Your task to perform on an android device: change timer sound Image 0: 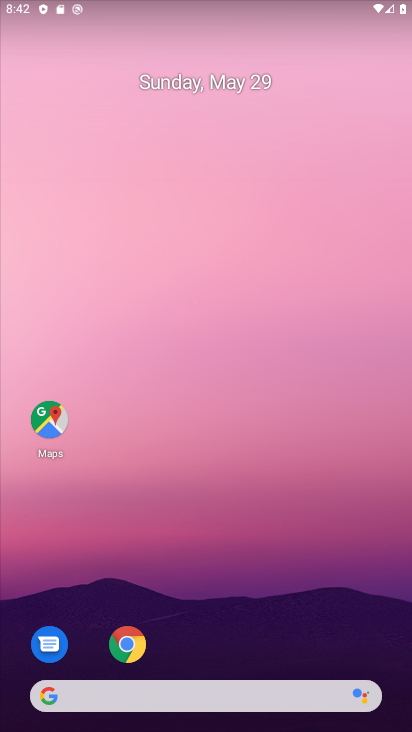
Step 0: drag from (222, 676) to (11, 111)
Your task to perform on an android device: change timer sound Image 1: 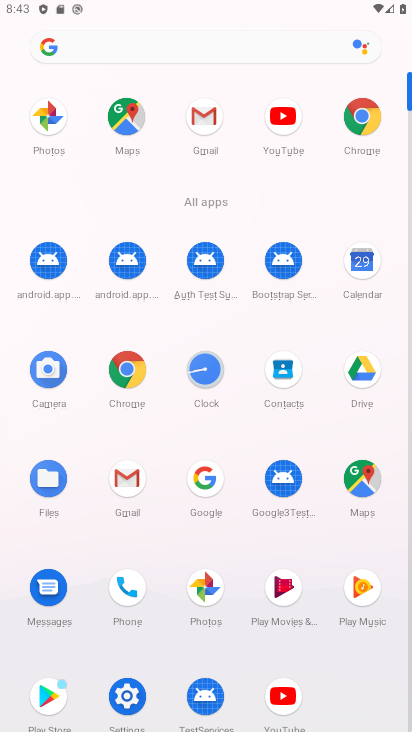
Step 1: click (205, 371)
Your task to perform on an android device: change timer sound Image 2: 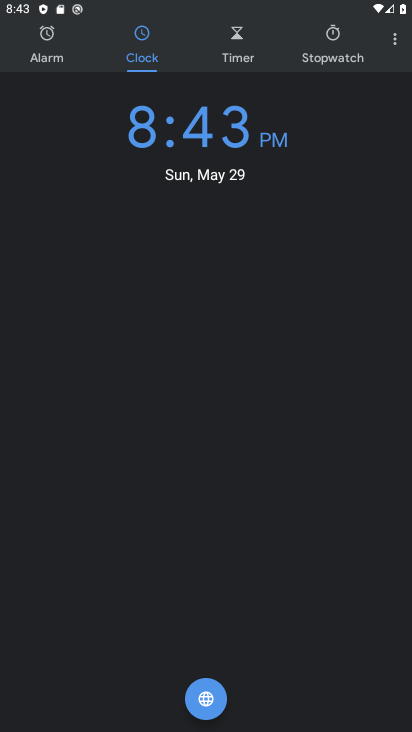
Step 2: click (395, 36)
Your task to perform on an android device: change timer sound Image 3: 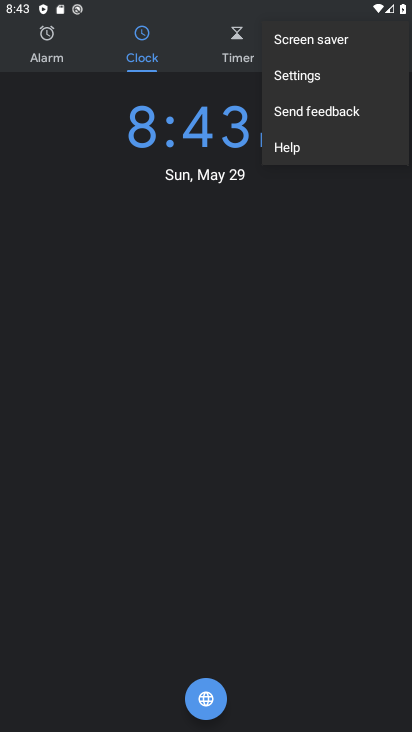
Step 3: click (326, 83)
Your task to perform on an android device: change timer sound Image 4: 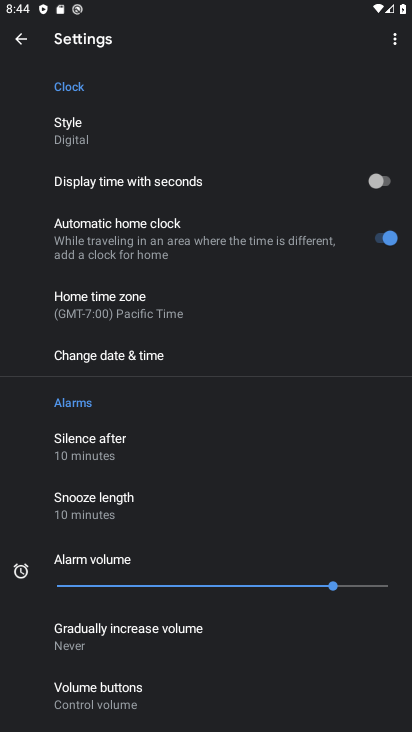
Step 4: drag from (146, 513) to (165, 5)
Your task to perform on an android device: change timer sound Image 5: 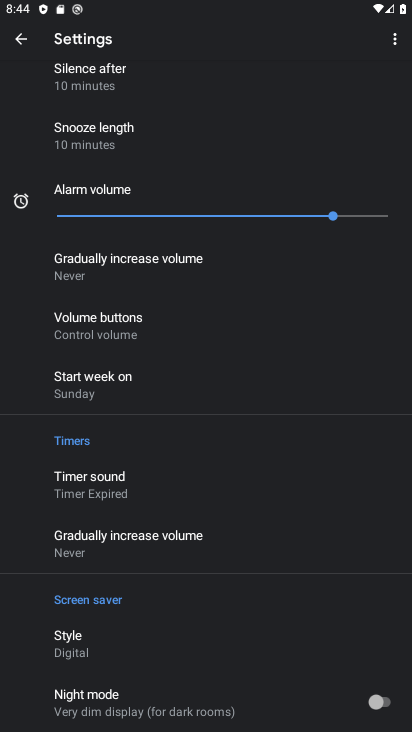
Step 5: click (161, 483)
Your task to perform on an android device: change timer sound Image 6: 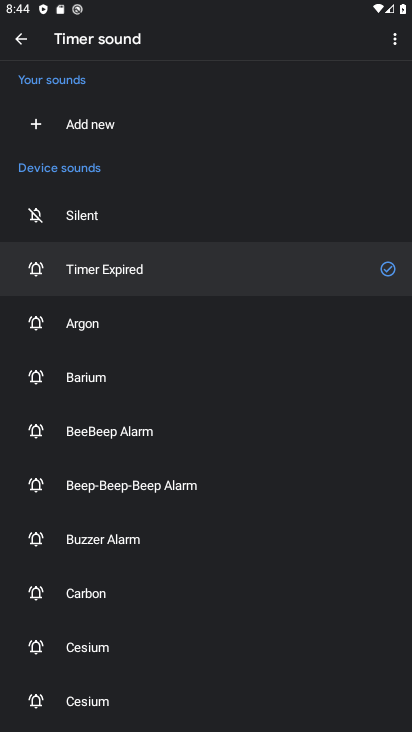
Step 6: click (140, 713)
Your task to perform on an android device: change timer sound Image 7: 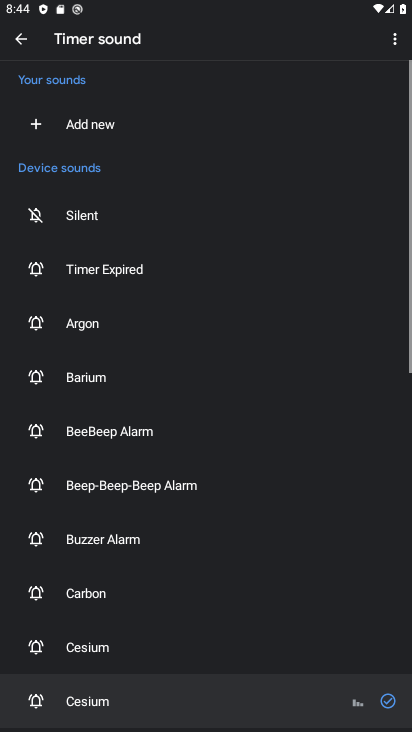
Step 7: task complete